Your task to perform on an android device: What's the weather going to be tomorrow? Image 0: 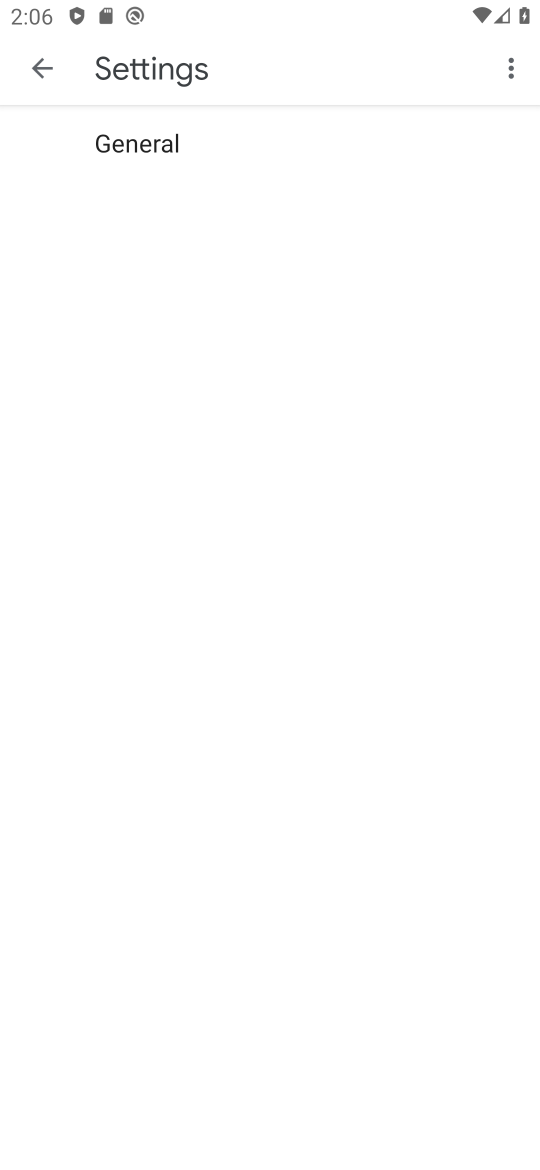
Step 0: press home button
Your task to perform on an android device: What's the weather going to be tomorrow? Image 1: 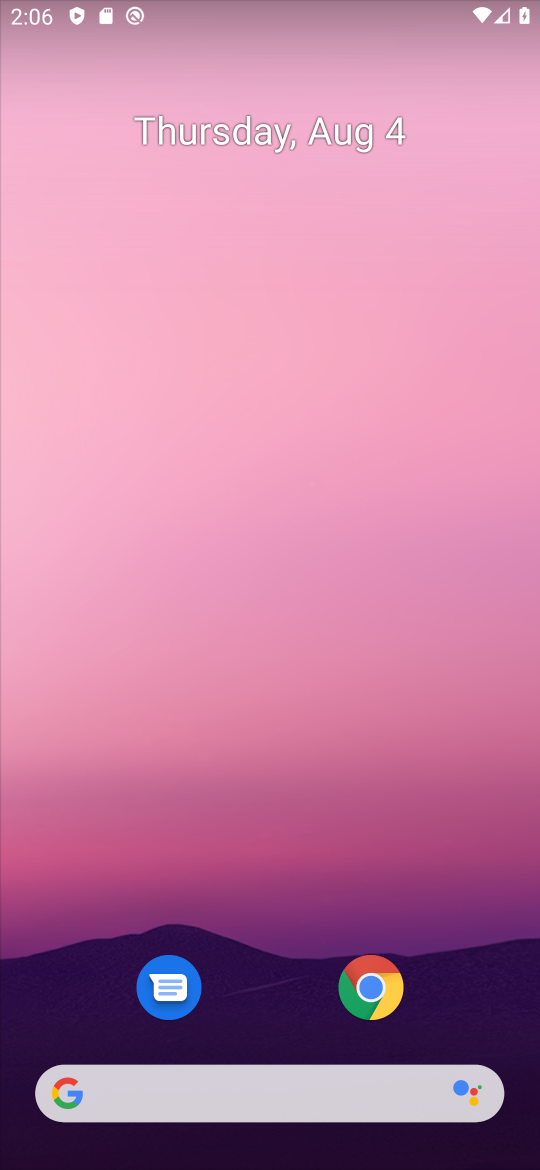
Step 1: drag from (421, 720) to (259, 54)
Your task to perform on an android device: What's the weather going to be tomorrow? Image 2: 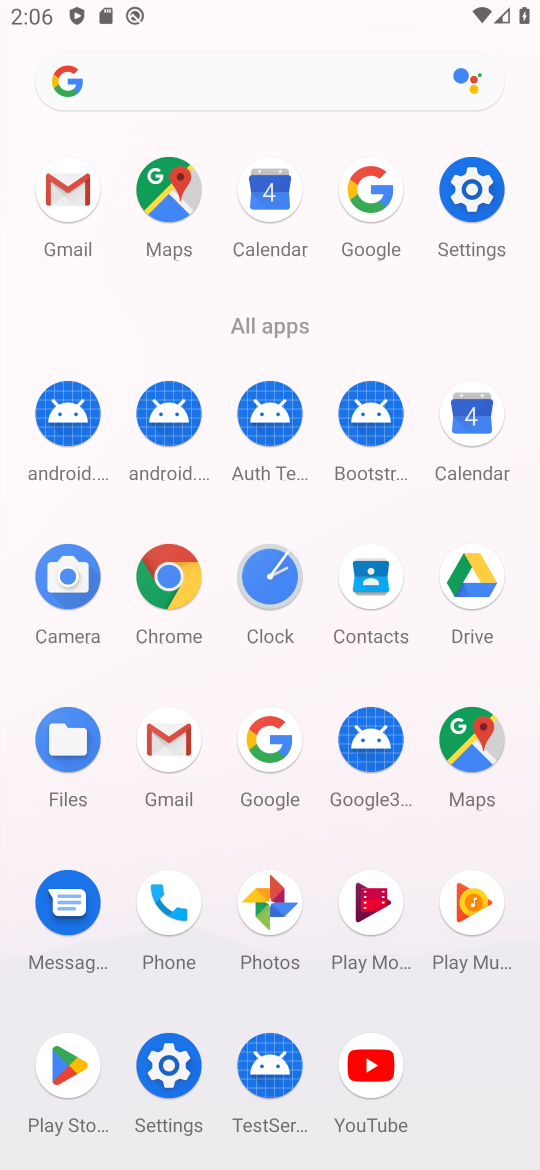
Step 2: click (259, 735)
Your task to perform on an android device: What's the weather going to be tomorrow? Image 3: 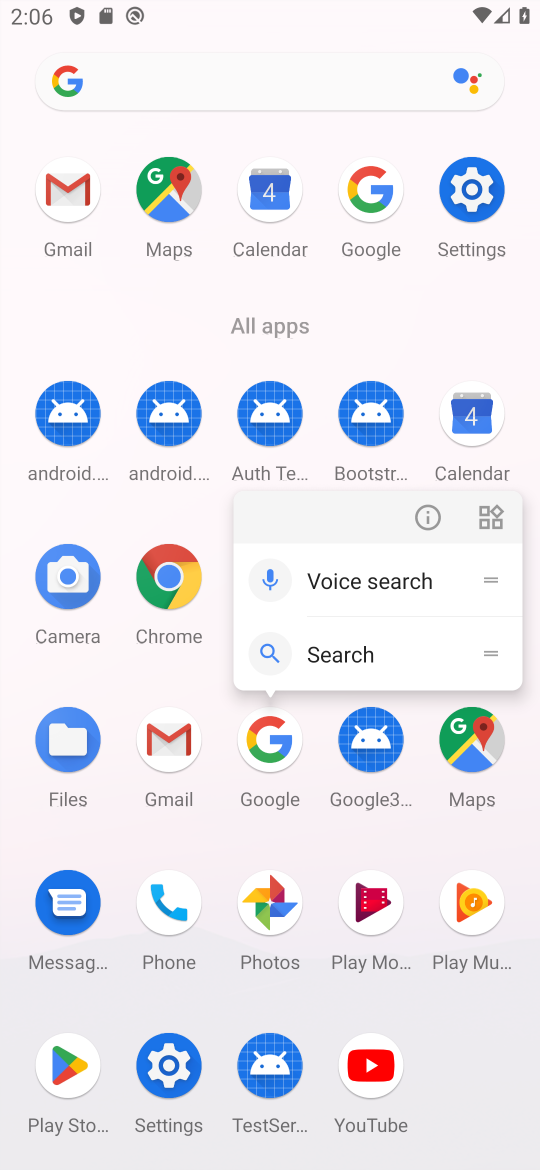
Step 3: click (262, 733)
Your task to perform on an android device: What's the weather going to be tomorrow? Image 4: 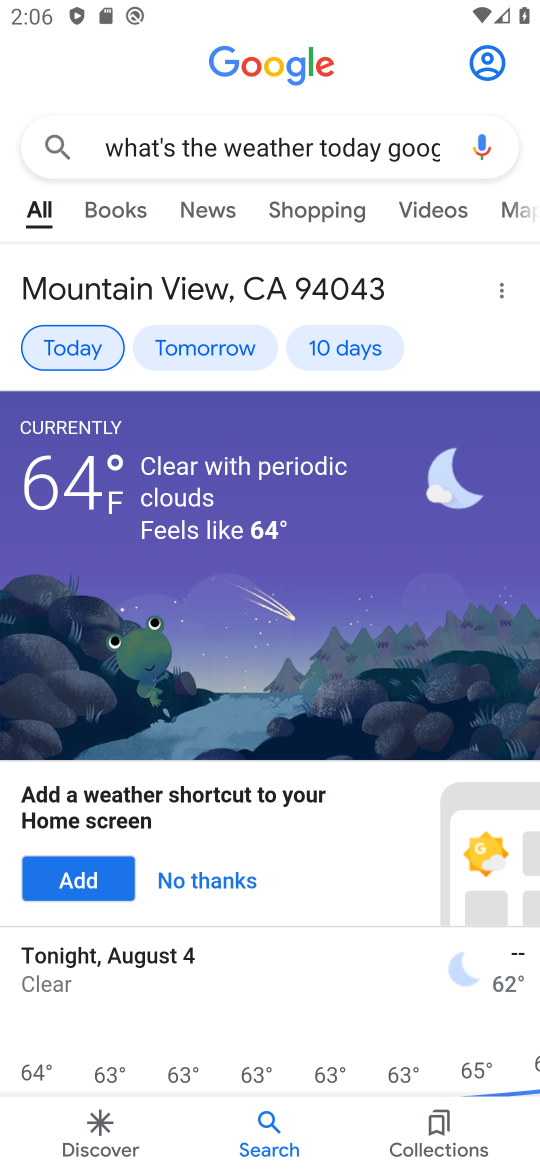
Step 4: press back button
Your task to perform on an android device: What's the weather going to be tomorrow? Image 5: 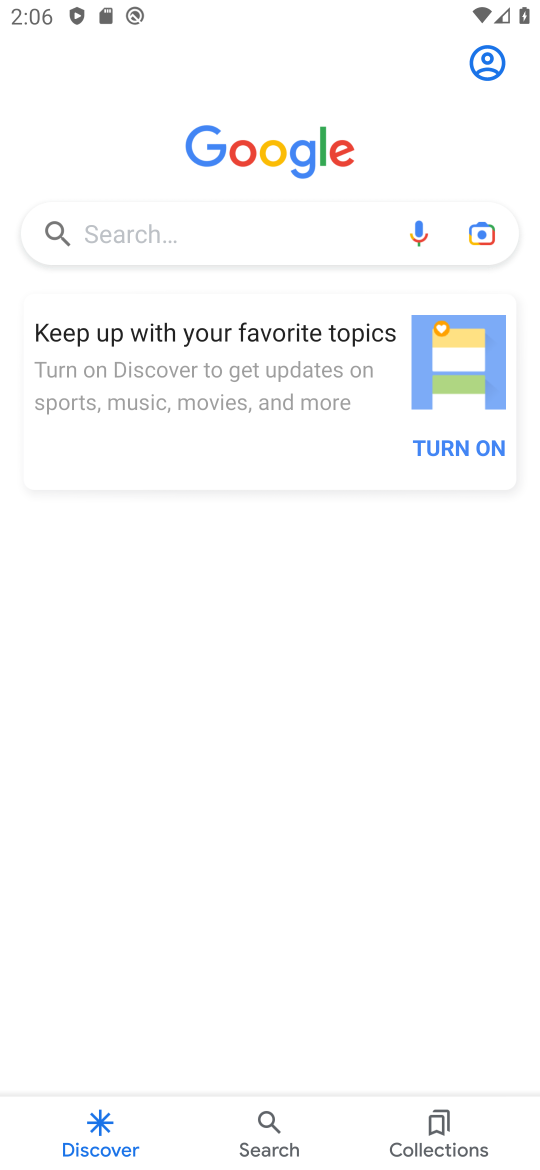
Step 5: click (114, 230)
Your task to perform on an android device: What's the weather going to be tomorrow? Image 6: 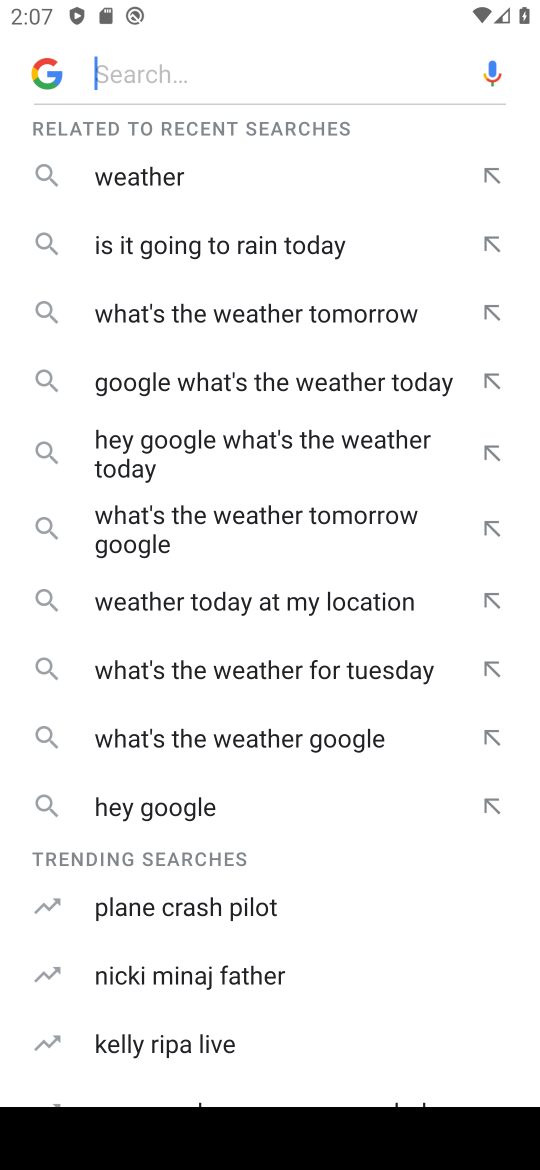
Step 6: type "What's the weather going to be tomorrow?"
Your task to perform on an android device: What's the weather going to be tomorrow? Image 7: 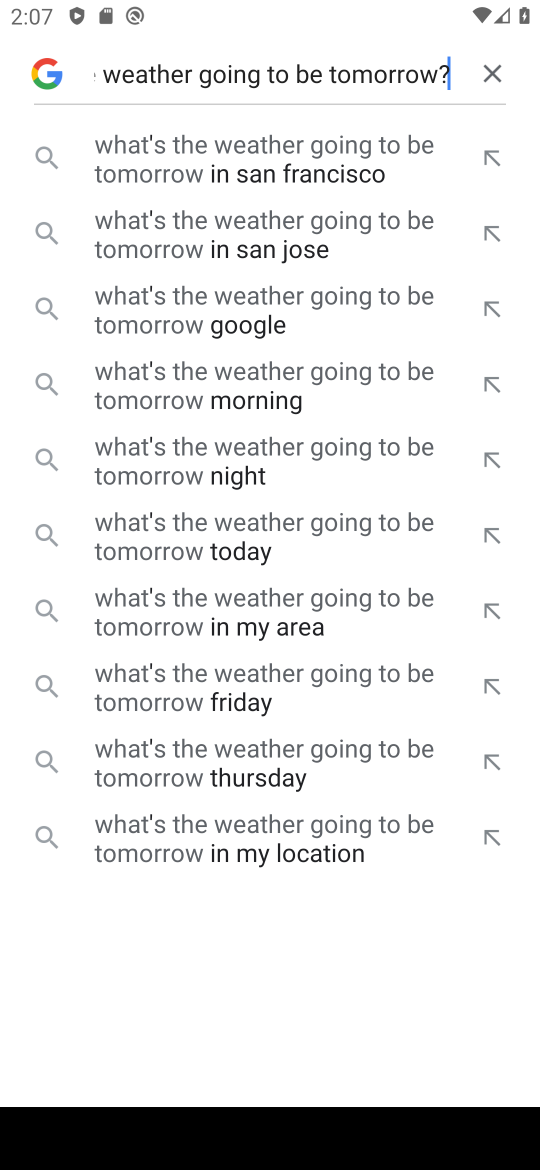
Step 7: click (218, 304)
Your task to perform on an android device: What's the weather going to be tomorrow? Image 8: 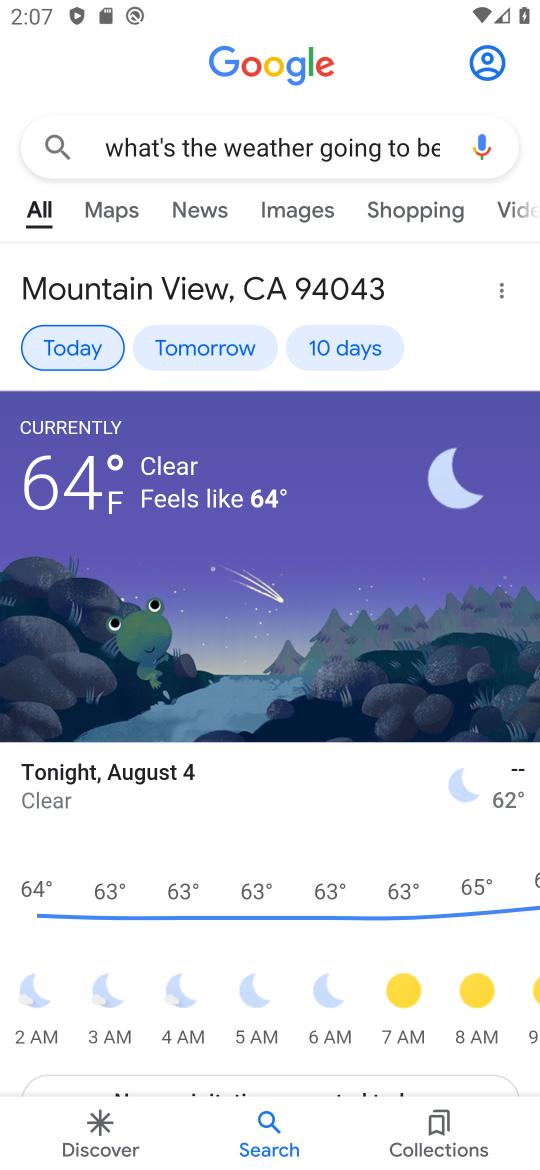
Step 8: task complete